Your task to perform on an android device: Go to notification settings Image 0: 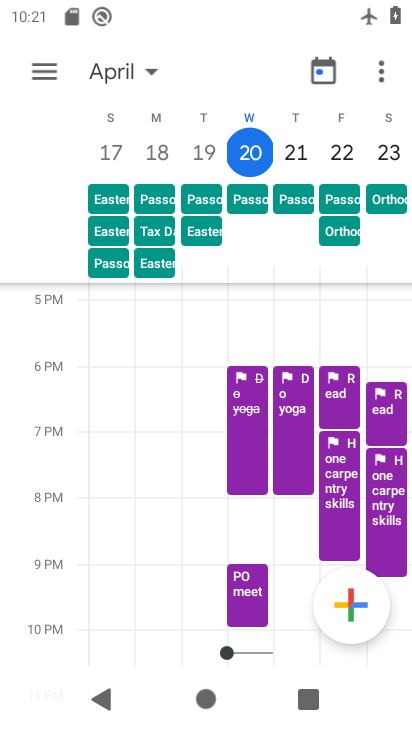
Step 0: press home button
Your task to perform on an android device: Go to notification settings Image 1: 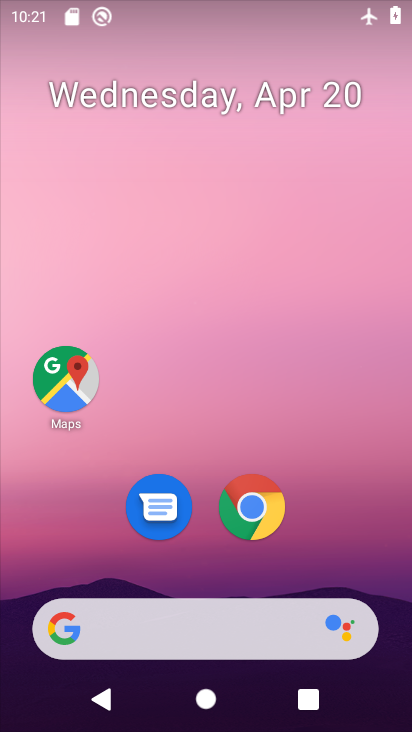
Step 1: drag from (223, 526) to (229, 105)
Your task to perform on an android device: Go to notification settings Image 2: 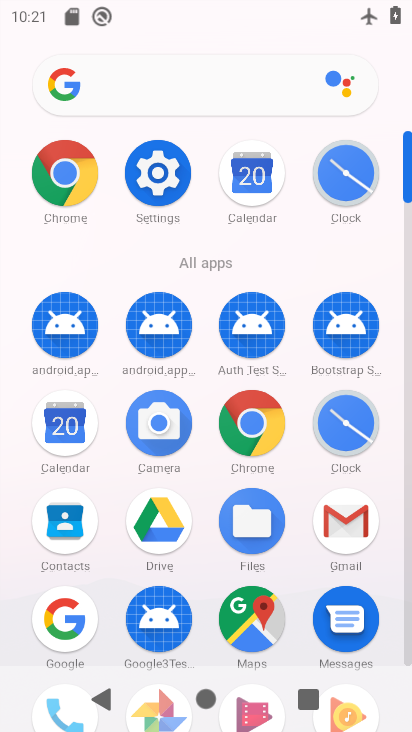
Step 2: drag from (400, 702) to (408, 385)
Your task to perform on an android device: Go to notification settings Image 3: 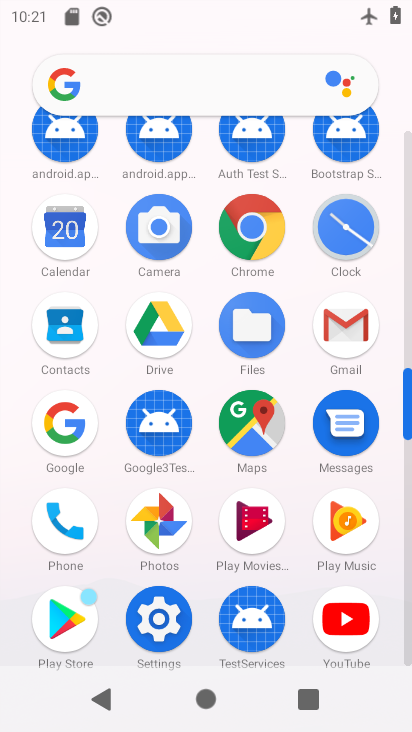
Step 3: click (160, 610)
Your task to perform on an android device: Go to notification settings Image 4: 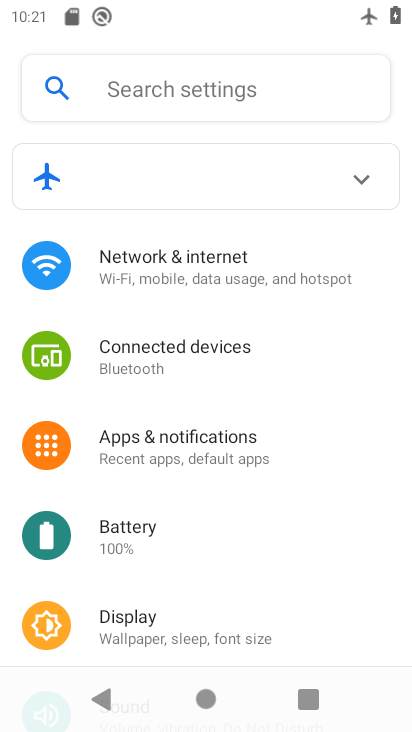
Step 4: click (160, 453)
Your task to perform on an android device: Go to notification settings Image 5: 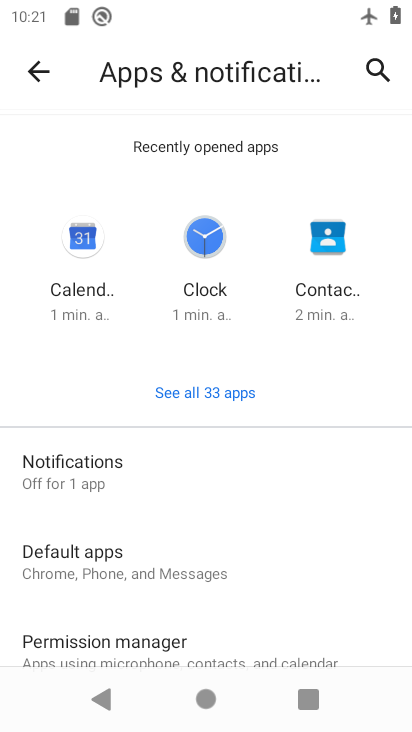
Step 5: task complete